Your task to perform on an android device: open sync settings in chrome Image 0: 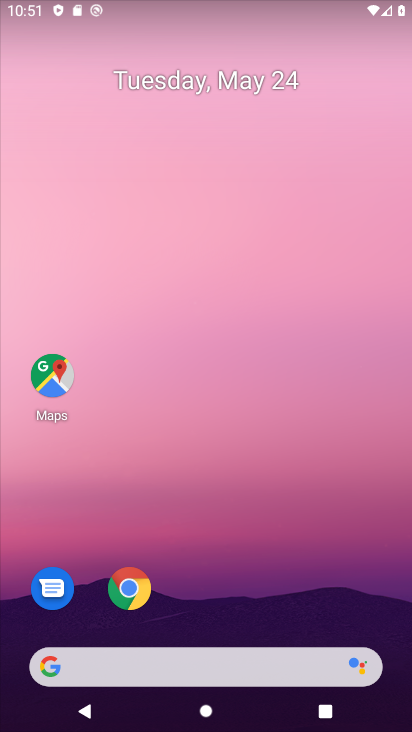
Step 0: drag from (208, 630) to (257, 69)
Your task to perform on an android device: open sync settings in chrome Image 1: 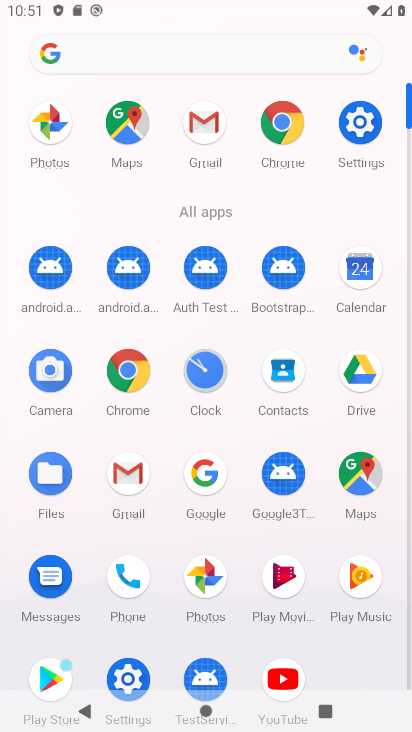
Step 1: click (123, 370)
Your task to perform on an android device: open sync settings in chrome Image 2: 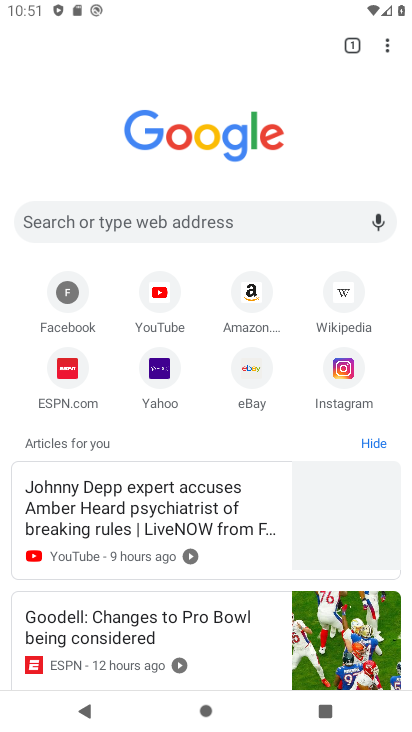
Step 2: click (392, 47)
Your task to perform on an android device: open sync settings in chrome Image 3: 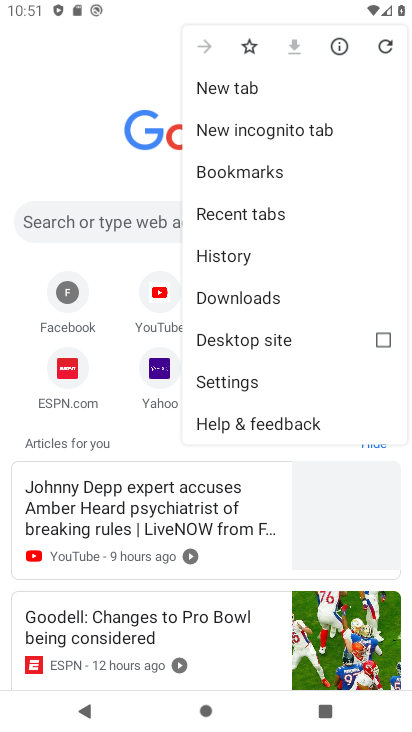
Step 3: click (265, 376)
Your task to perform on an android device: open sync settings in chrome Image 4: 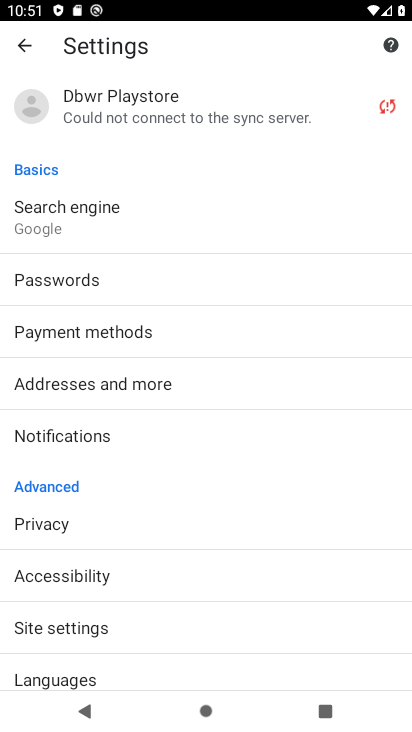
Step 4: click (121, 111)
Your task to perform on an android device: open sync settings in chrome Image 5: 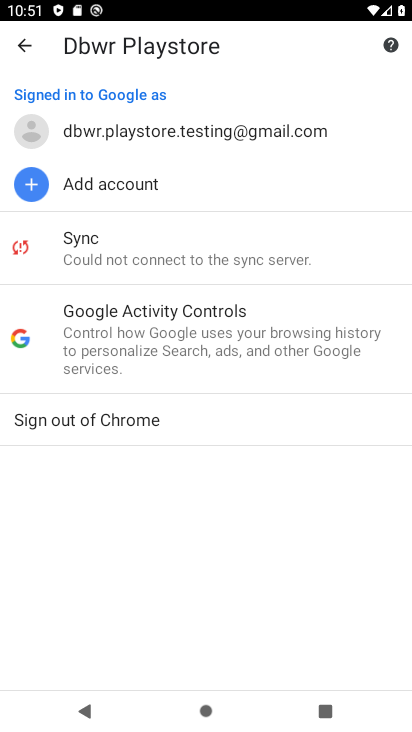
Step 5: click (126, 247)
Your task to perform on an android device: open sync settings in chrome Image 6: 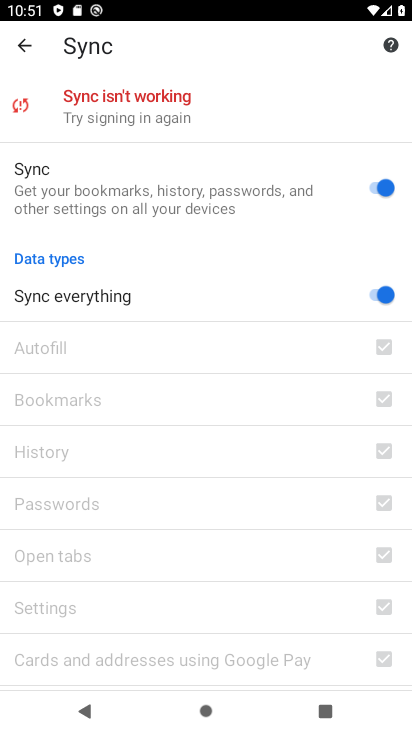
Step 6: task complete